Your task to perform on an android device: Open ESPN.com Image 0: 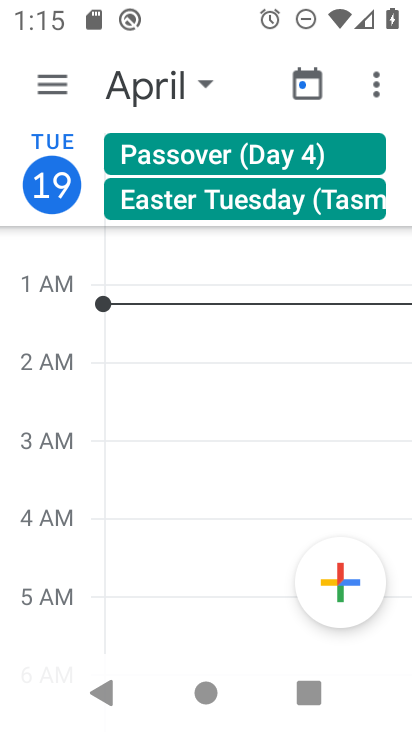
Step 0: click (338, 444)
Your task to perform on an android device: Open ESPN.com Image 1: 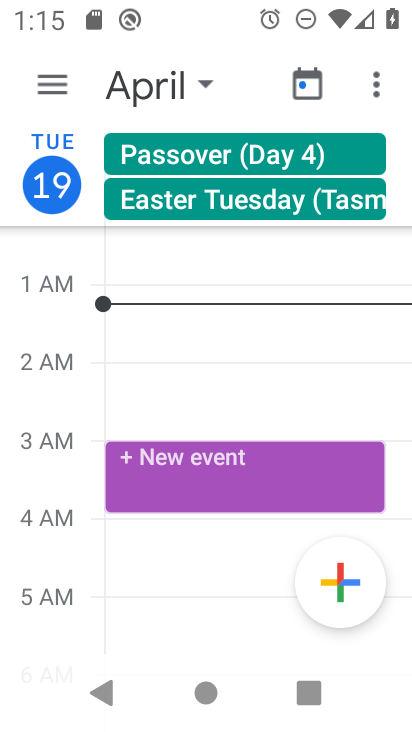
Step 1: press home button
Your task to perform on an android device: Open ESPN.com Image 2: 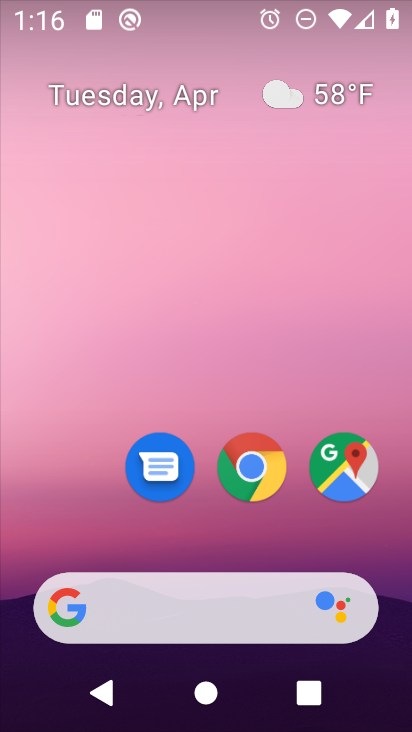
Step 2: click (249, 472)
Your task to perform on an android device: Open ESPN.com Image 3: 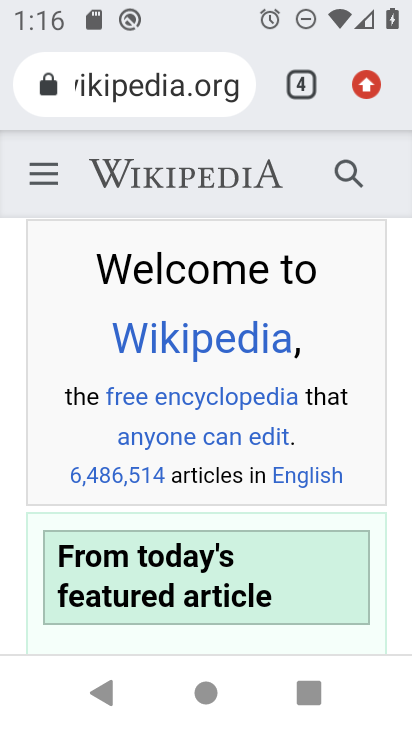
Step 3: click (363, 89)
Your task to perform on an android device: Open ESPN.com Image 4: 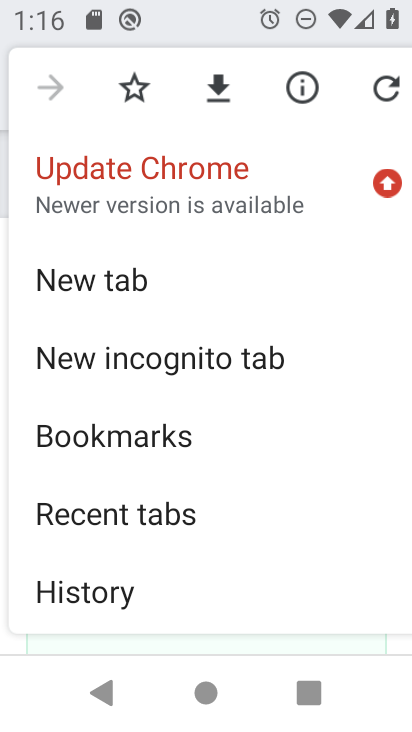
Step 4: click (192, 291)
Your task to perform on an android device: Open ESPN.com Image 5: 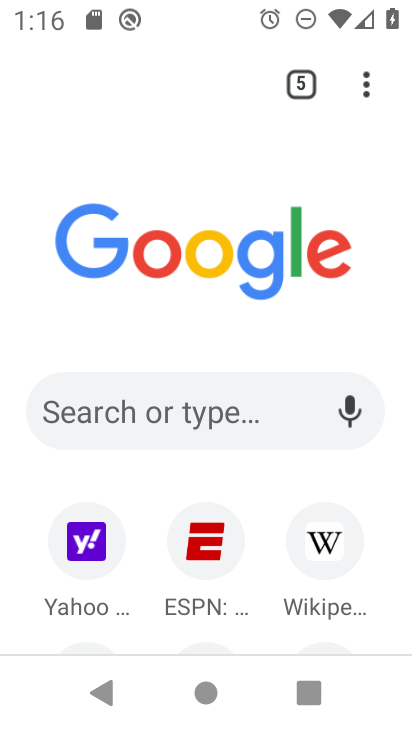
Step 5: click (202, 544)
Your task to perform on an android device: Open ESPN.com Image 6: 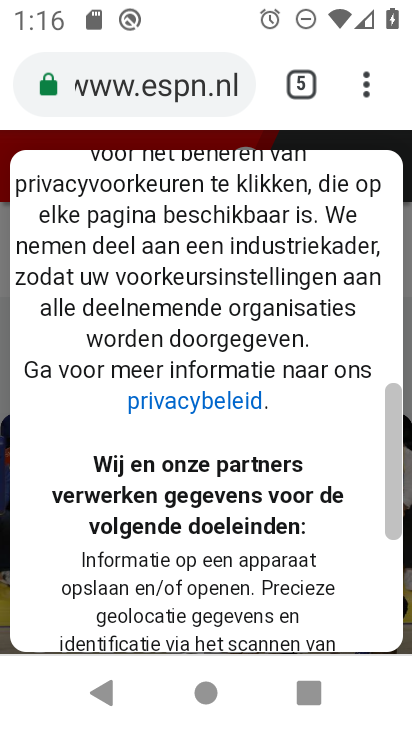
Step 6: task complete